Your task to perform on an android device: Open the files app Image 0: 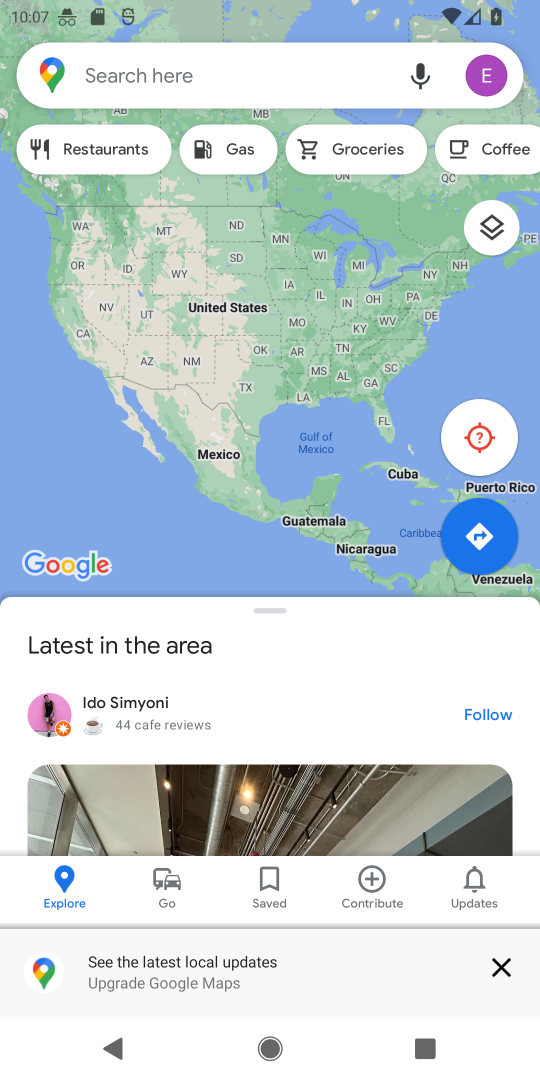
Step 0: press home button
Your task to perform on an android device: Open the files app Image 1: 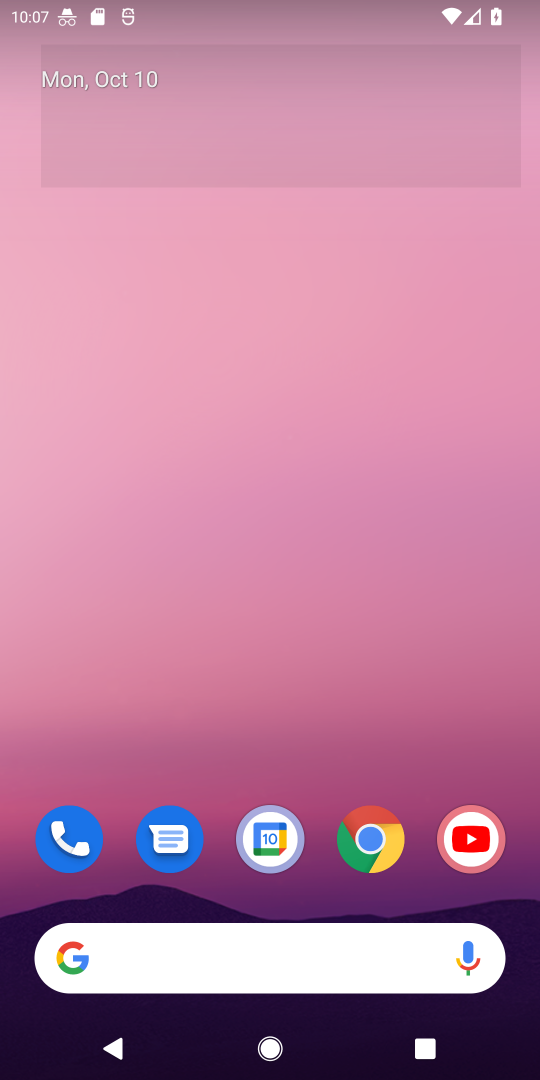
Step 1: drag from (307, 865) to (303, 25)
Your task to perform on an android device: Open the files app Image 2: 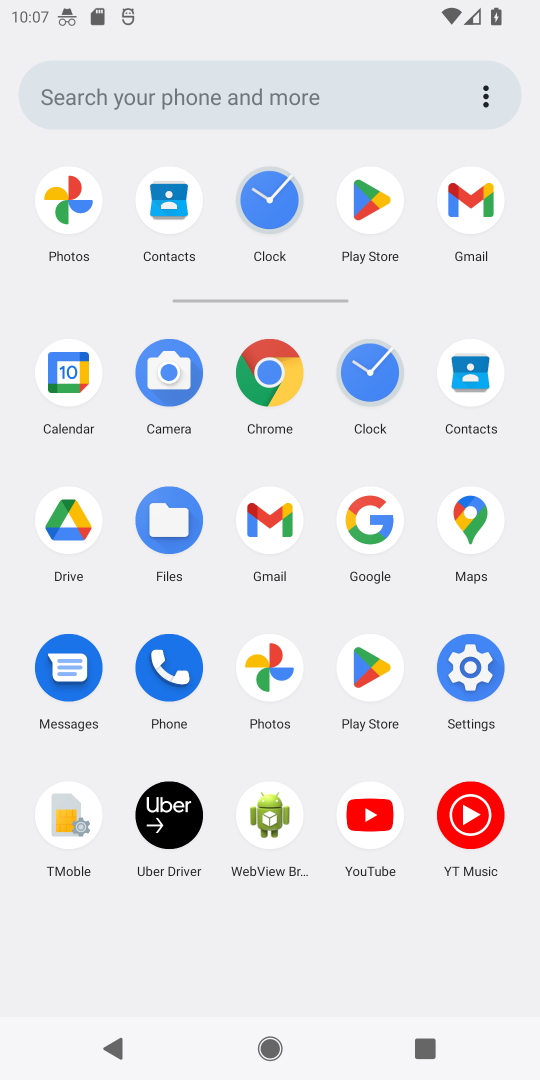
Step 2: drag from (319, 447) to (326, 341)
Your task to perform on an android device: Open the files app Image 3: 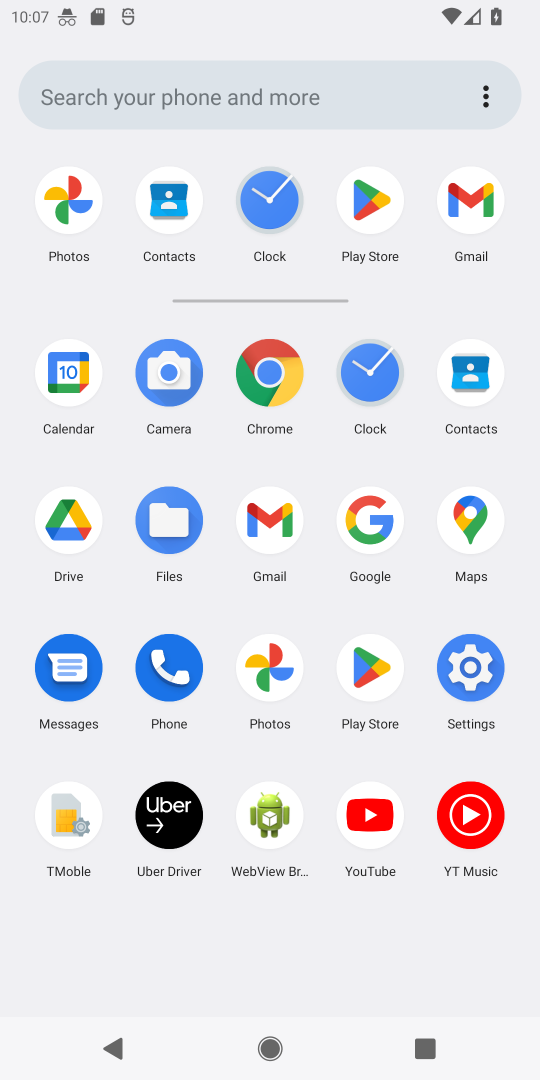
Step 3: click (158, 513)
Your task to perform on an android device: Open the files app Image 4: 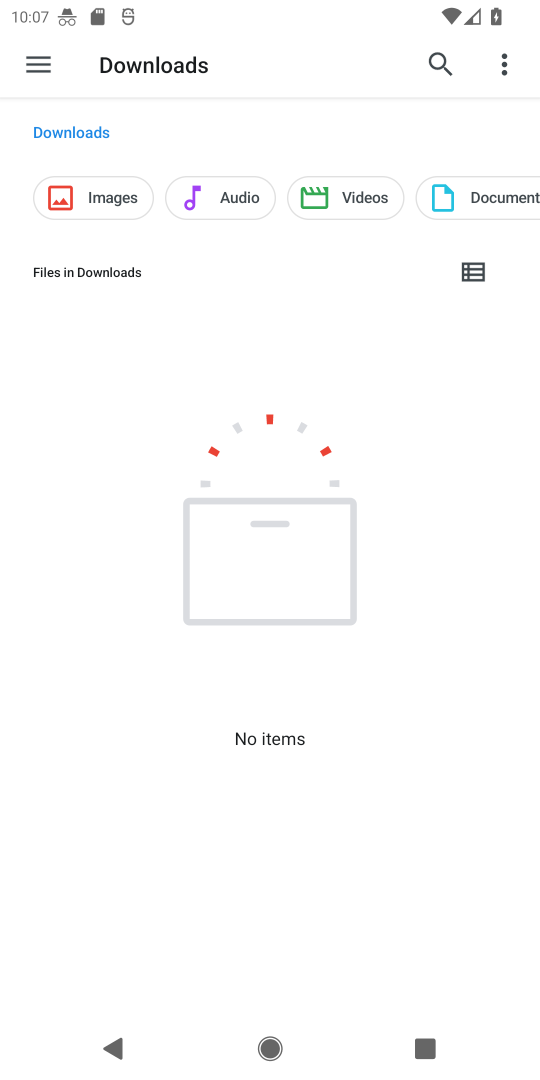
Step 4: task complete